Your task to perform on an android device: Clear the shopping cart on amazon.com. Search for dell alienware on amazon.com, select the first entry, add it to the cart, then select checkout. Image 0: 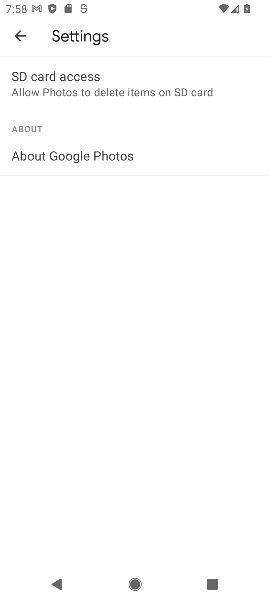
Step 0: press home button
Your task to perform on an android device: Clear the shopping cart on amazon.com. Search for dell alienware on amazon.com, select the first entry, add it to the cart, then select checkout. Image 1: 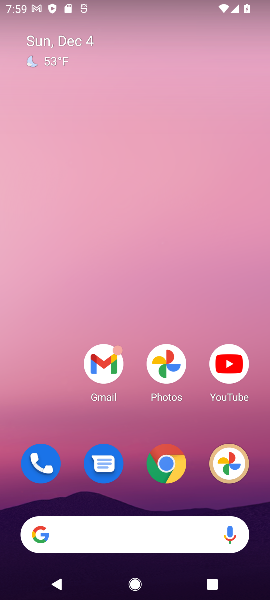
Step 1: click (132, 541)
Your task to perform on an android device: Clear the shopping cart on amazon.com. Search for dell alienware on amazon.com, select the first entry, add it to the cart, then select checkout. Image 2: 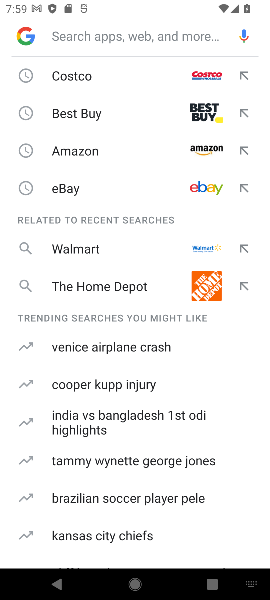
Step 2: click (120, 149)
Your task to perform on an android device: Clear the shopping cart on amazon.com. Search for dell alienware on amazon.com, select the first entry, add it to the cart, then select checkout. Image 3: 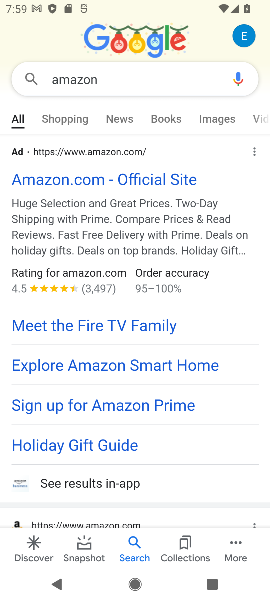
Step 3: click (108, 175)
Your task to perform on an android device: Clear the shopping cart on amazon.com. Search for dell alienware on amazon.com, select the first entry, add it to the cart, then select checkout. Image 4: 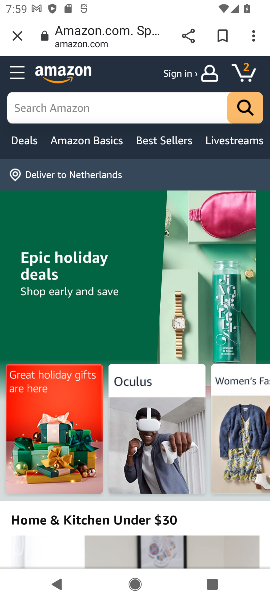
Step 4: click (134, 116)
Your task to perform on an android device: Clear the shopping cart on amazon.com. Search for dell alienware on amazon.com, select the first entry, add it to the cart, then select checkout. Image 5: 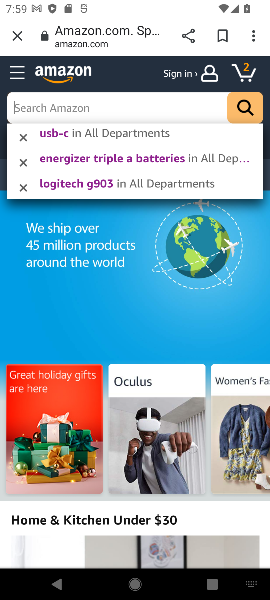
Step 5: type "dell alienware"
Your task to perform on an android device: Clear the shopping cart on amazon.com. Search for dell alienware on amazon.com, select the first entry, add it to the cart, then select checkout. Image 6: 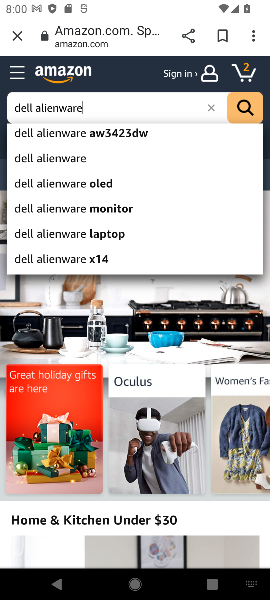
Step 6: click (87, 164)
Your task to perform on an android device: Clear the shopping cart on amazon.com. Search for dell alienware on amazon.com, select the first entry, add it to the cart, then select checkout. Image 7: 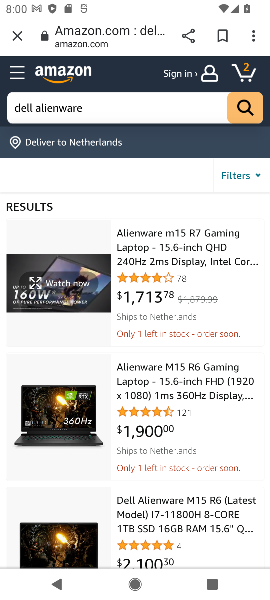
Step 7: click (143, 257)
Your task to perform on an android device: Clear the shopping cart on amazon.com. Search for dell alienware on amazon.com, select the first entry, add it to the cart, then select checkout. Image 8: 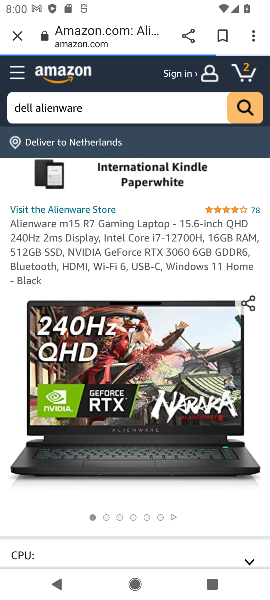
Step 8: task complete